Your task to perform on an android device: Go to display settings Image 0: 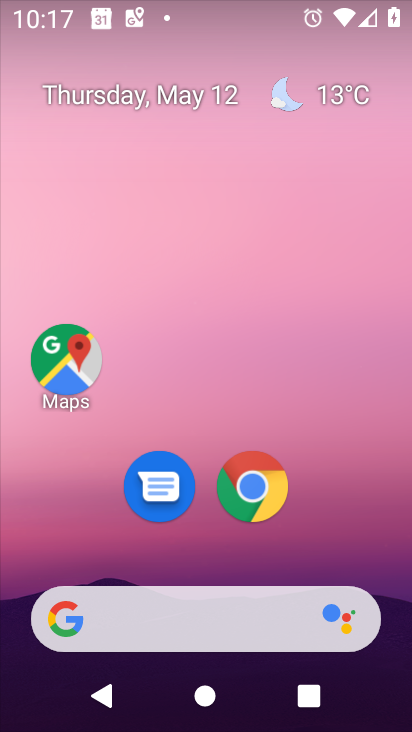
Step 0: drag from (381, 465) to (329, 113)
Your task to perform on an android device: Go to display settings Image 1: 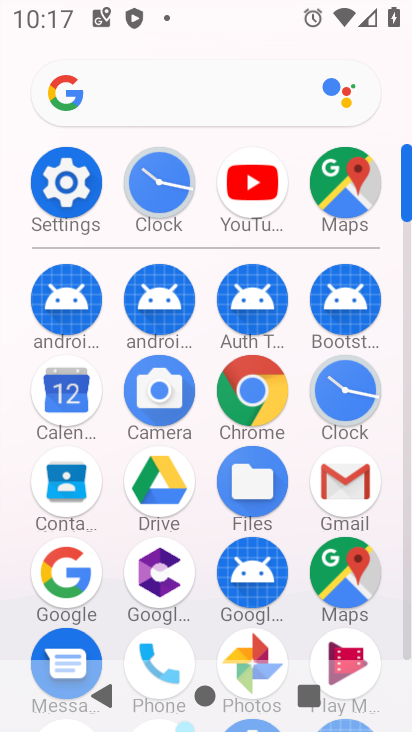
Step 1: click (75, 194)
Your task to perform on an android device: Go to display settings Image 2: 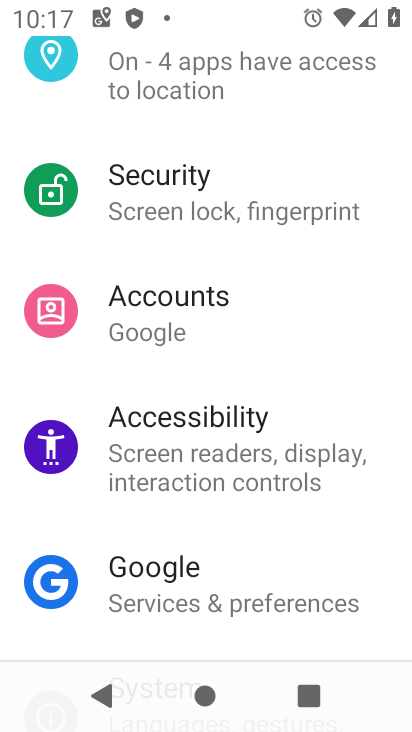
Step 2: drag from (219, 231) to (288, 668)
Your task to perform on an android device: Go to display settings Image 3: 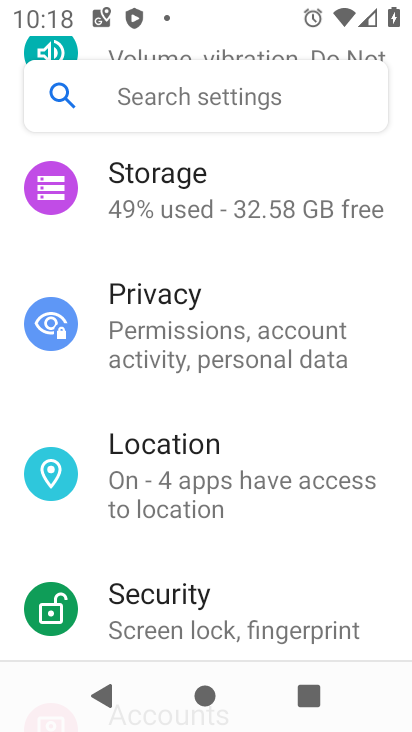
Step 3: drag from (183, 262) to (194, 527)
Your task to perform on an android device: Go to display settings Image 4: 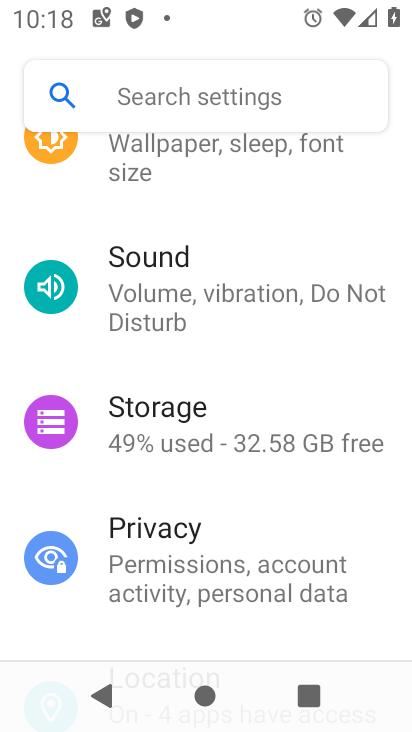
Step 4: click (141, 168)
Your task to perform on an android device: Go to display settings Image 5: 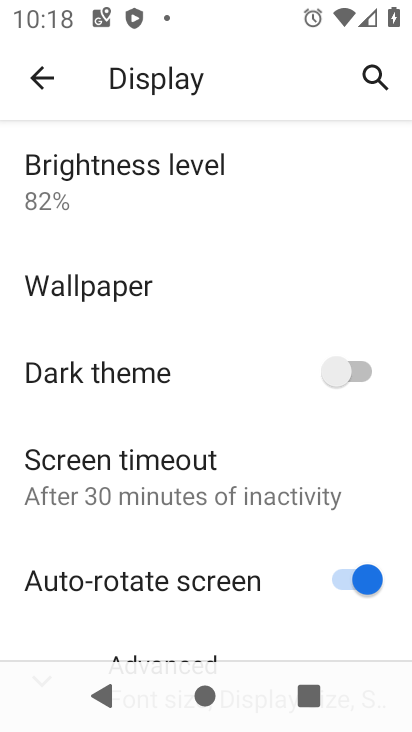
Step 5: task complete